Your task to perform on an android device: turn on showing notifications on the lock screen Image 0: 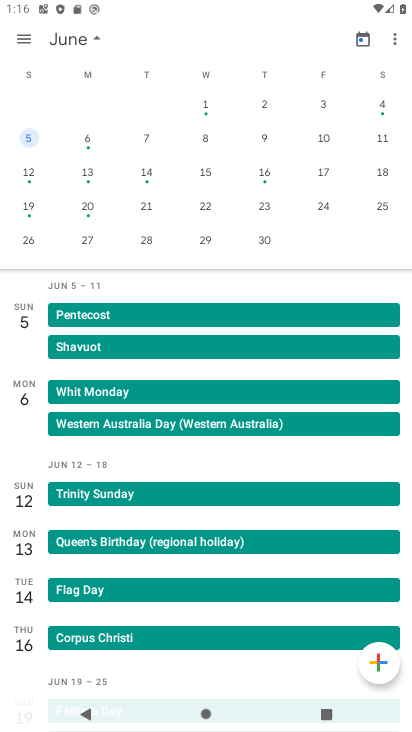
Step 0: press home button
Your task to perform on an android device: turn on showing notifications on the lock screen Image 1: 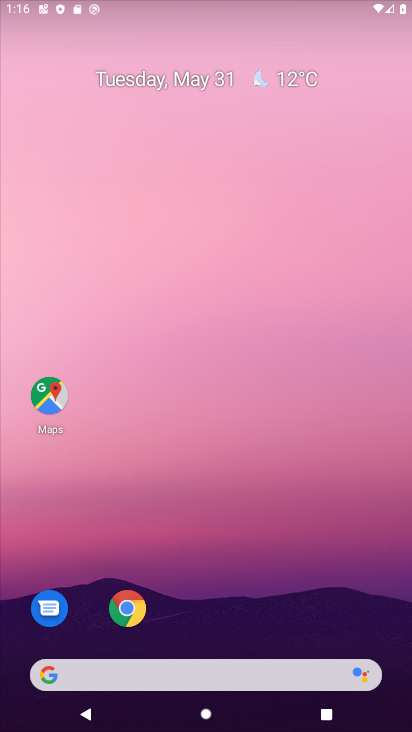
Step 1: drag from (348, 575) to (348, 202)
Your task to perform on an android device: turn on showing notifications on the lock screen Image 2: 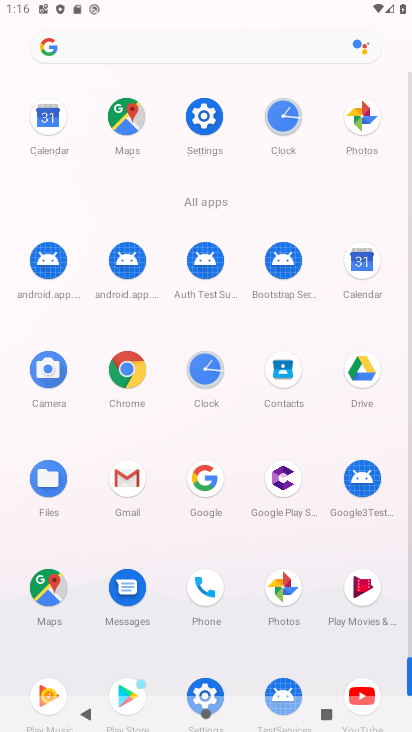
Step 2: click (218, 120)
Your task to perform on an android device: turn on showing notifications on the lock screen Image 3: 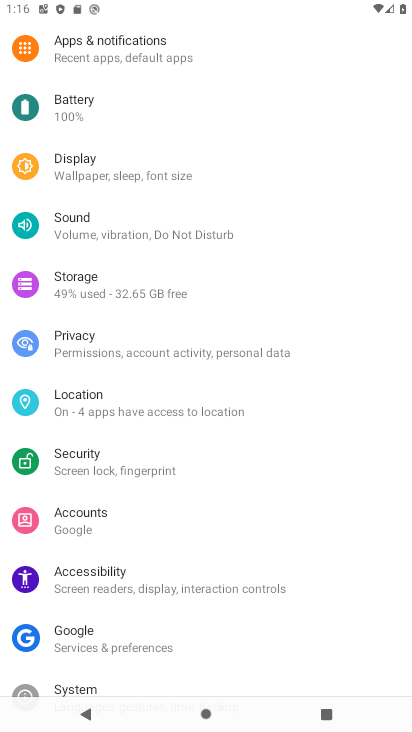
Step 3: click (135, 63)
Your task to perform on an android device: turn on showing notifications on the lock screen Image 4: 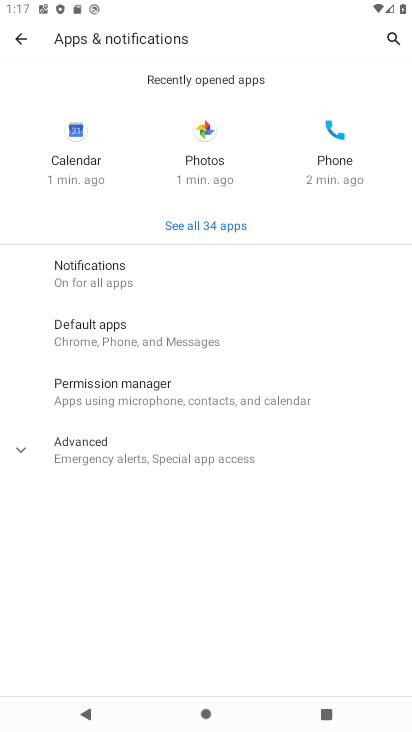
Step 4: click (164, 276)
Your task to perform on an android device: turn on showing notifications on the lock screen Image 5: 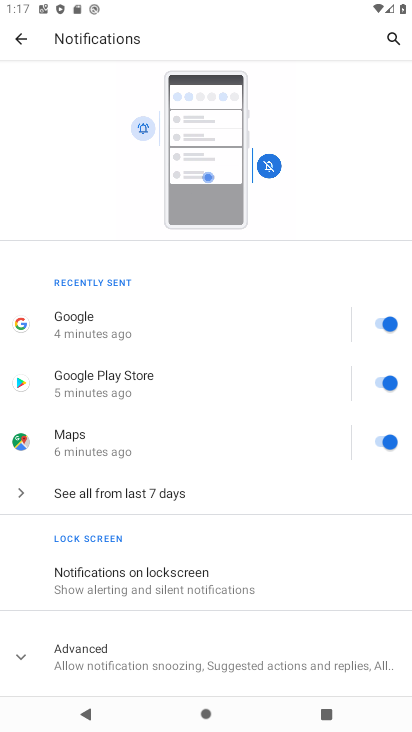
Step 5: click (198, 574)
Your task to perform on an android device: turn on showing notifications on the lock screen Image 6: 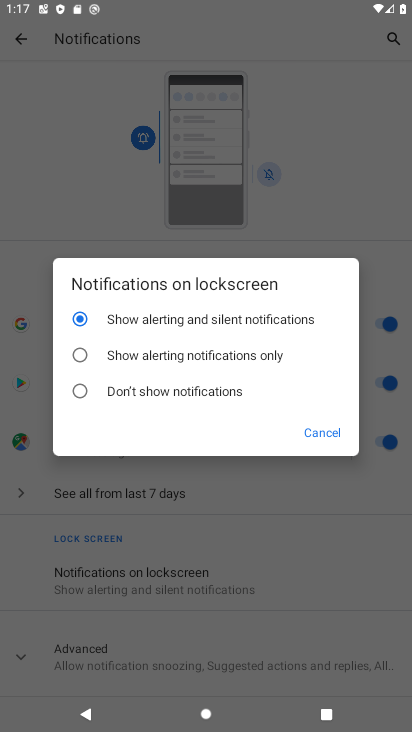
Step 6: task complete